Your task to perform on an android device: allow notifications from all sites in the chrome app Image 0: 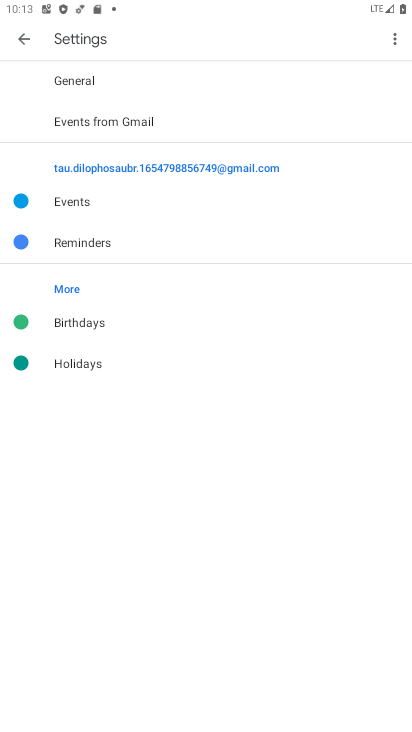
Step 0: press home button
Your task to perform on an android device: allow notifications from all sites in the chrome app Image 1: 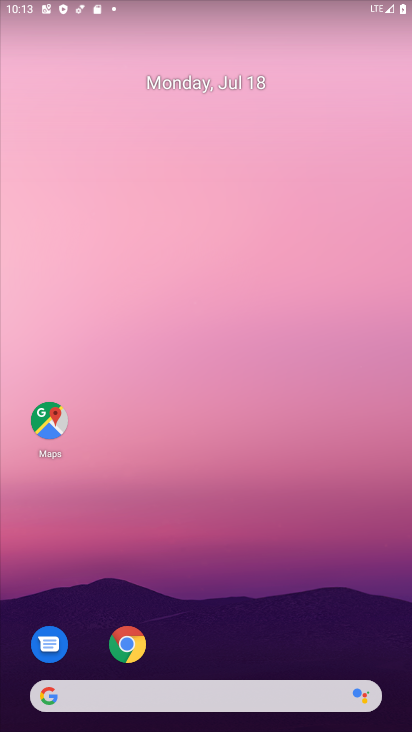
Step 1: drag from (378, 542) to (382, 133)
Your task to perform on an android device: allow notifications from all sites in the chrome app Image 2: 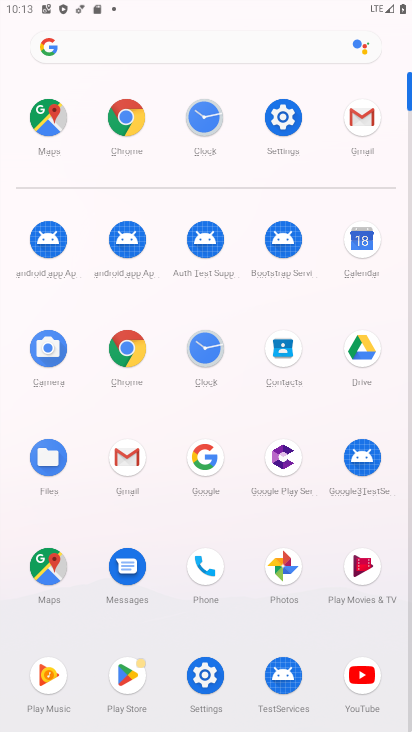
Step 2: click (136, 346)
Your task to perform on an android device: allow notifications from all sites in the chrome app Image 3: 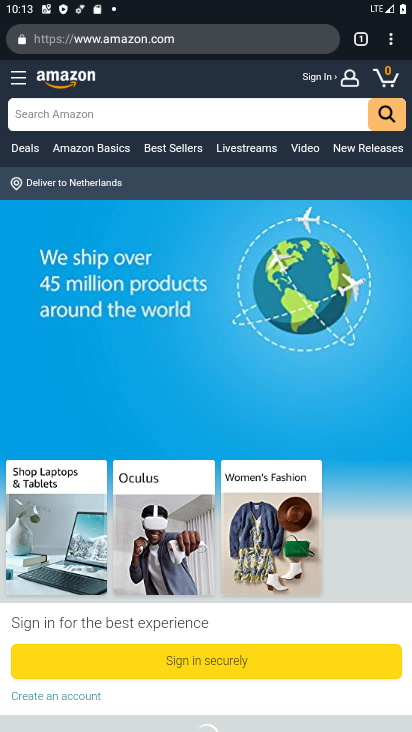
Step 3: click (392, 45)
Your task to perform on an android device: allow notifications from all sites in the chrome app Image 4: 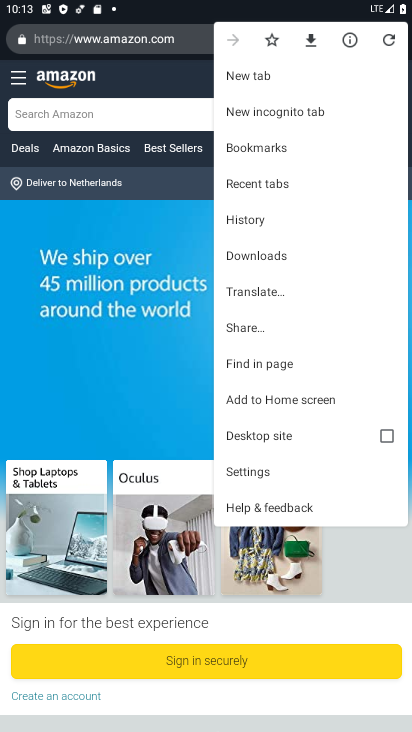
Step 4: click (297, 467)
Your task to perform on an android device: allow notifications from all sites in the chrome app Image 5: 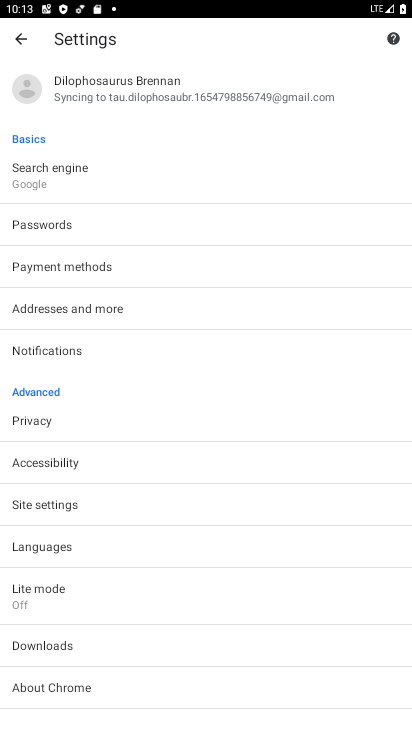
Step 5: drag from (334, 487) to (342, 393)
Your task to perform on an android device: allow notifications from all sites in the chrome app Image 6: 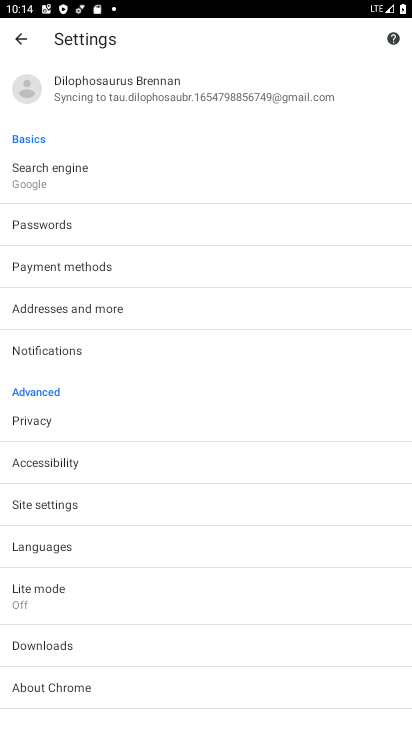
Step 6: click (310, 499)
Your task to perform on an android device: allow notifications from all sites in the chrome app Image 7: 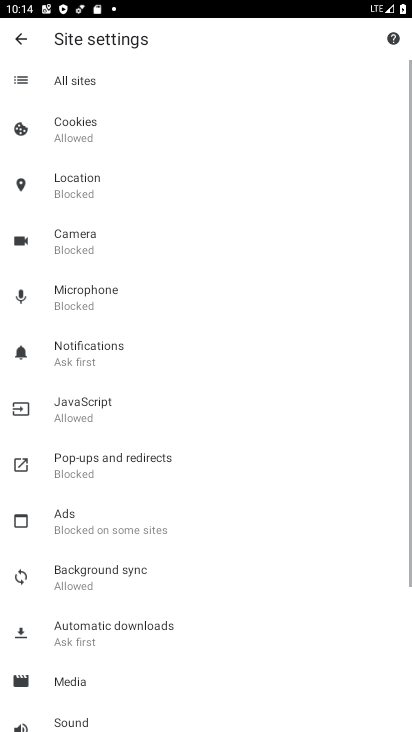
Step 7: drag from (312, 513) to (327, 452)
Your task to perform on an android device: allow notifications from all sites in the chrome app Image 8: 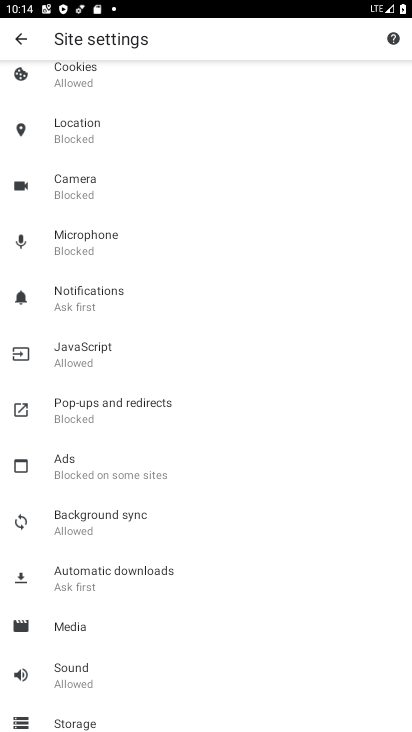
Step 8: drag from (326, 500) to (322, 427)
Your task to perform on an android device: allow notifications from all sites in the chrome app Image 9: 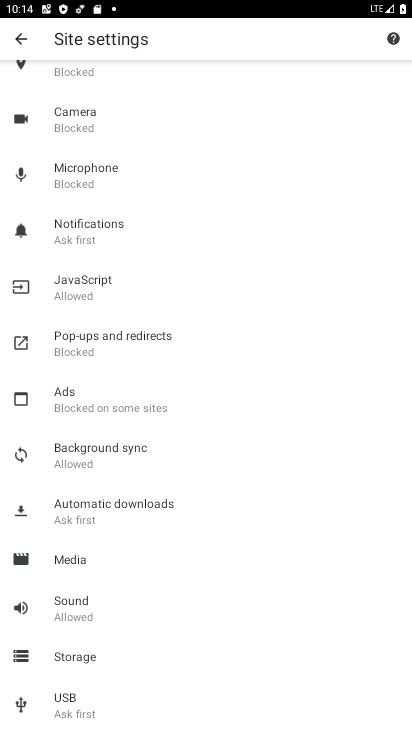
Step 9: drag from (311, 542) to (331, 406)
Your task to perform on an android device: allow notifications from all sites in the chrome app Image 10: 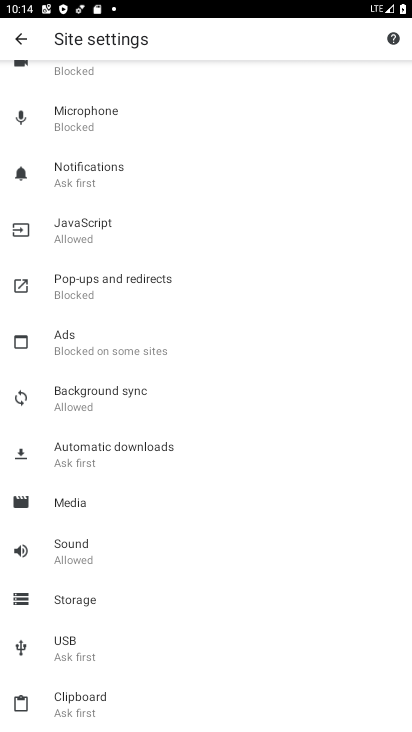
Step 10: drag from (334, 520) to (317, 411)
Your task to perform on an android device: allow notifications from all sites in the chrome app Image 11: 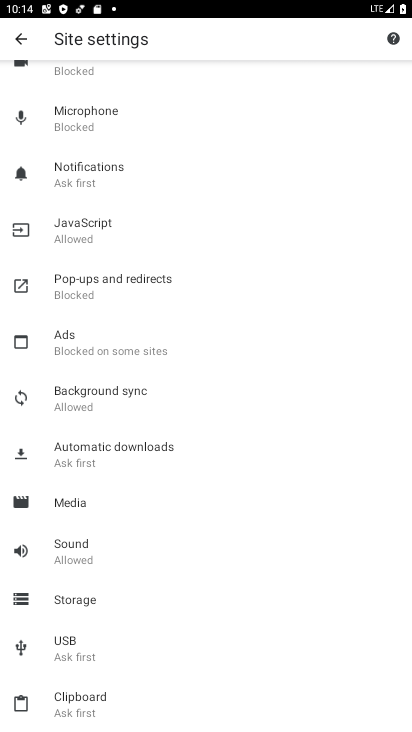
Step 11: drag from (333, 296) to (337, 389)
Your task to perform on an android device: allow notifications from all sites in the chrome app Image 12: 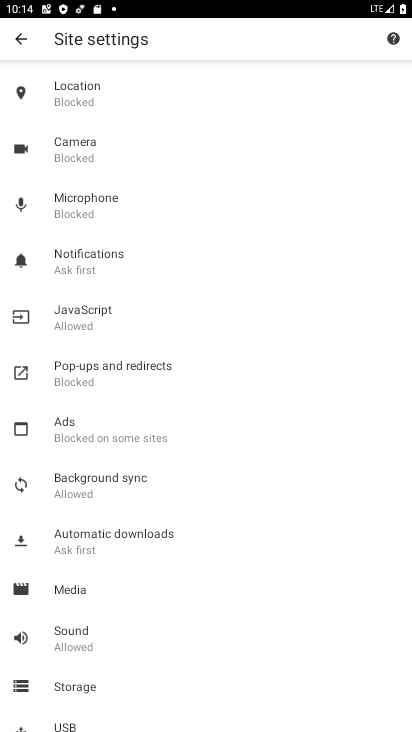
Step 12: drag from (343, 291) to (347, 360)
Your task to perform on an android device: allow notifications from all sites in the chrome app Image 13: 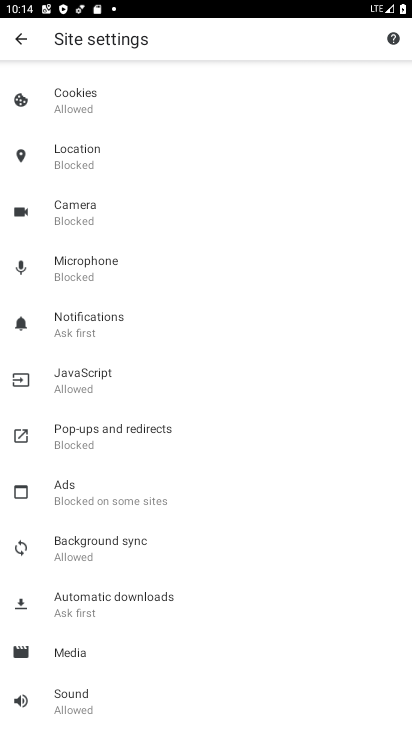
Step 13: drag from (359, 288) to (353, 374)
Your task to perform on an android device: allow notifications from all sites in the chrome app Image 14: 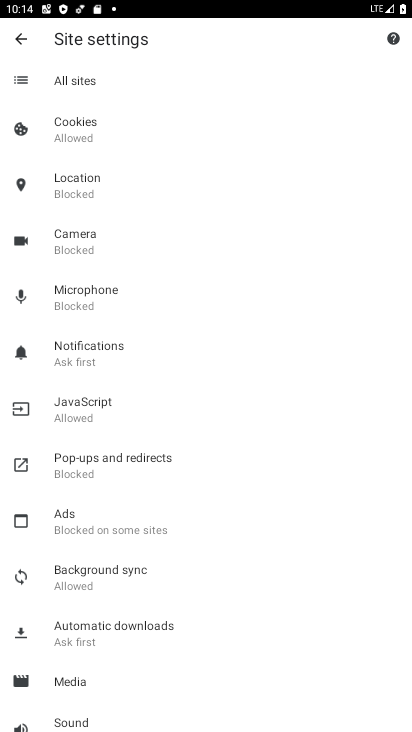
Step 14: click (135, 355)
Your task to perform on an android device: allow notifications from all sites in the chrome app Image 15: 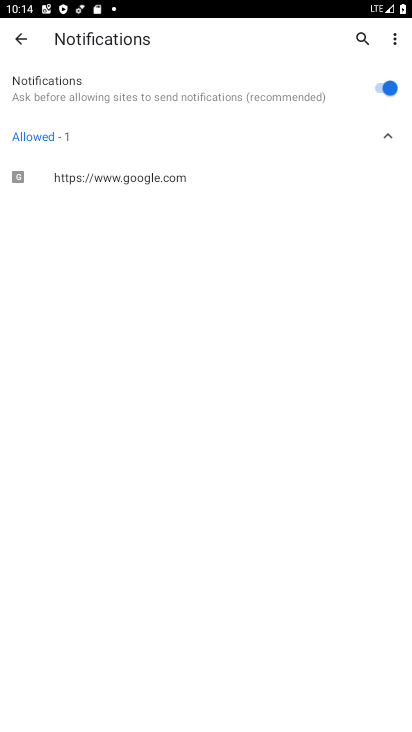
Step 15: task complete